Your task to perform on an android device: turn on priority inbox in the gmail app Image 0: 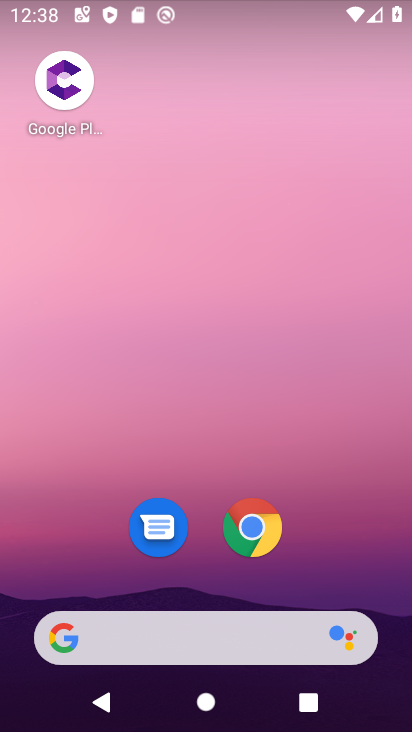
Step 0: drag from (340, 530) to (363, 121)
Your task to perform on an android device: turn on priority inbox in the gmail app Image 1: 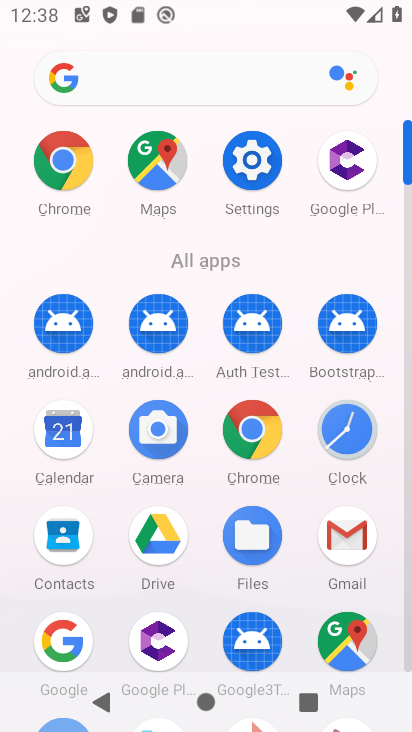
Step 1: click (347, 537)
Your task to perform on an android device: turn on priority inbox in the gmail app Image 2: 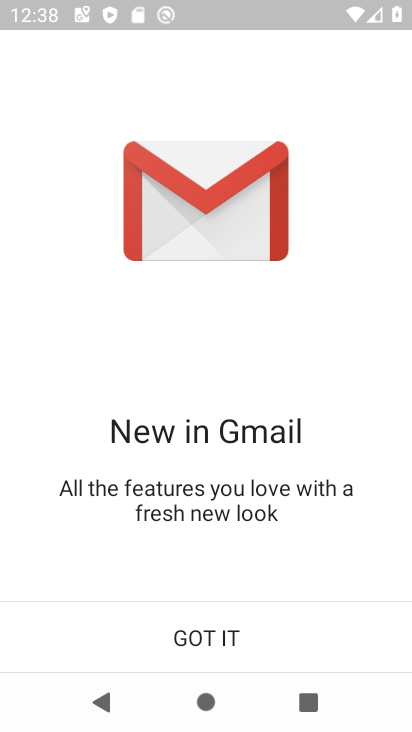
Step 2: click (247, 638)
Your task to perform on an android device: turn on priority inbox in the gmail app Image 3: 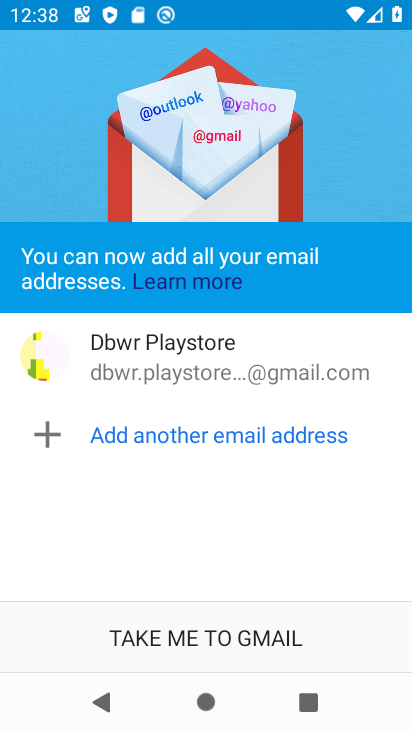
Step 3: click (247, 638)
Your task to perform on an android device: turn on priority inbox in the gmail app Image 4: 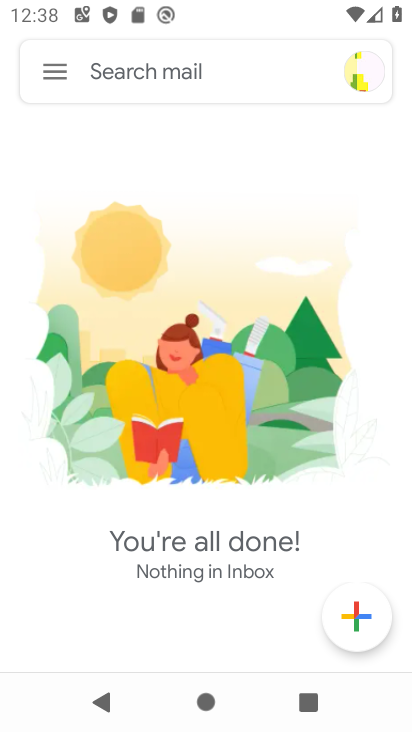
Step 4: click (57, 73)
Your task to perform on an android device: turn on priority inbox in the gmail app Image 5: 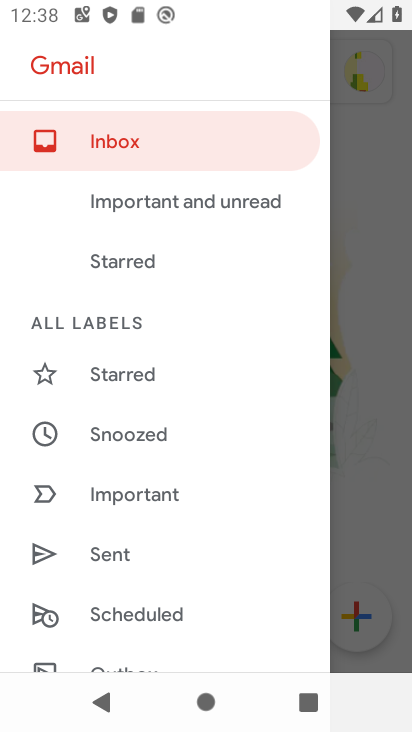
Step 5: drag from (245, 553) to (256, 356)
Your task to perform on an android device: turn on priority inbox in the gmail app Image 6: 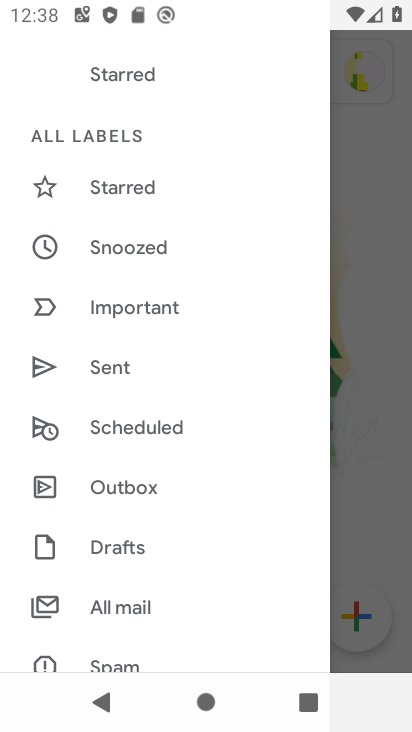
Step 6: drag from (247, 574) to (248, 393)
Your task to perform on an android device: turn on priority inbox in the gmail app Image 7: 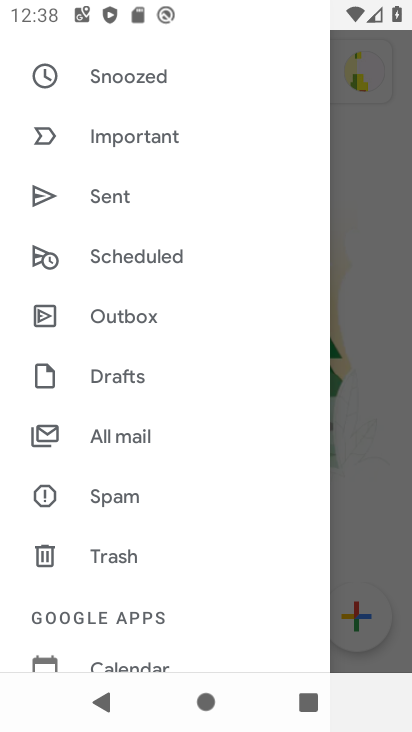
Step 7: drag from (243, 603) to (252, 436)
Your task to perform on an android device: turn on priority inbox in the gmail app Image 8: 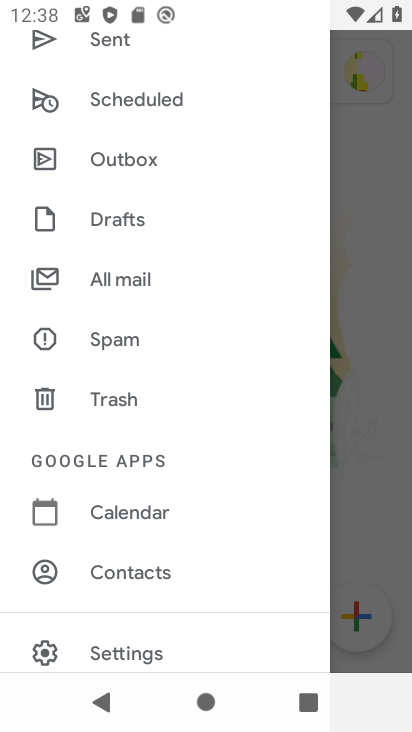
Step 8: drag from (245, 630) to (269, 437)
Your task to perform on an android device: turn on priority inbox in the gmail app Image 9: 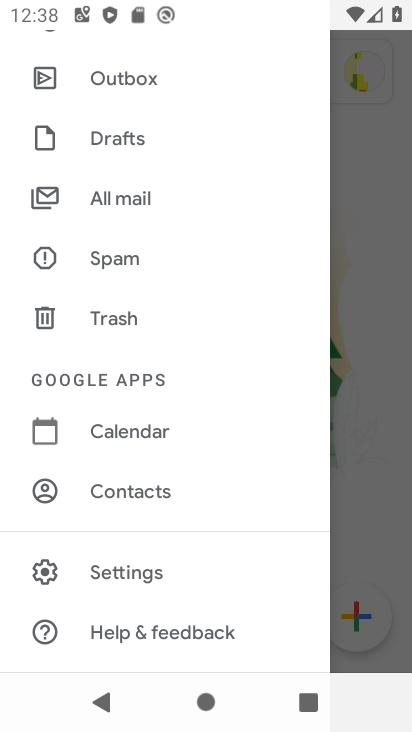
Step 9: click (159, 583)
Your task to perform on an android device: turn on priority inbox in the gmail app Image 10: 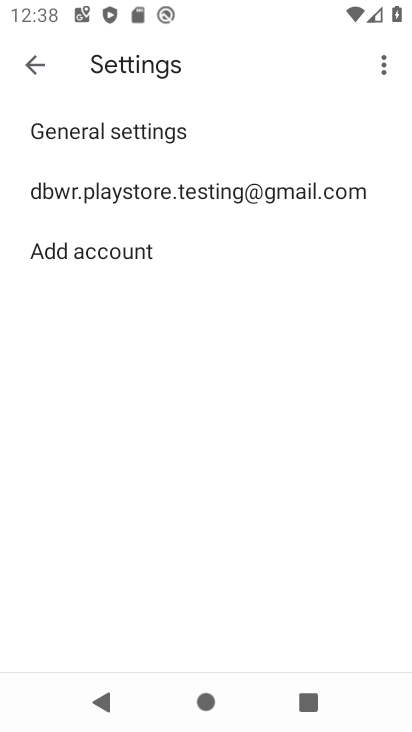
Step 10: click (262, 191)
Your task to perform on an android device: turn on priority inbox in the gmail app Image 11: 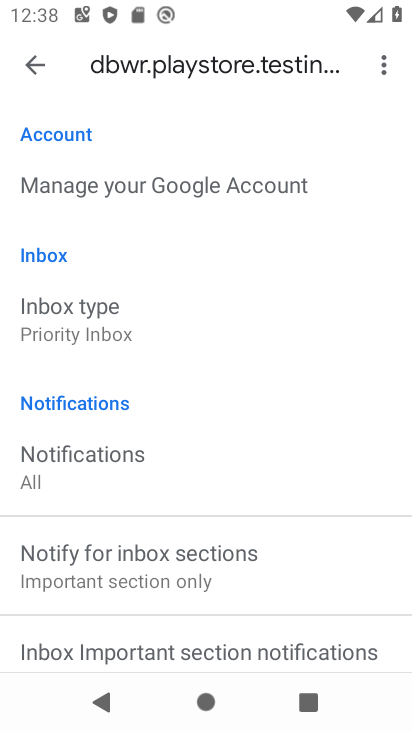
Step 11: drag from (304, 580) to (327, 342)
Your task to perform on an android device: turn on priority inbox in the gmail app Image 12: 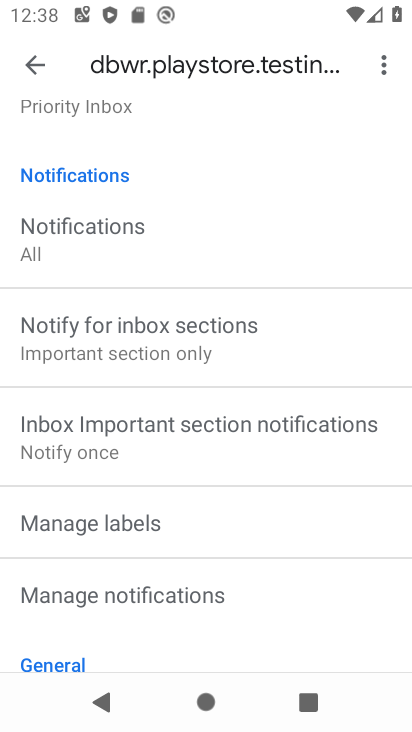
Step 12: drag from (334, 609) to (342, 394)
Your task to perform on an android device: turn on priority inbox in the gmail app Image 13: 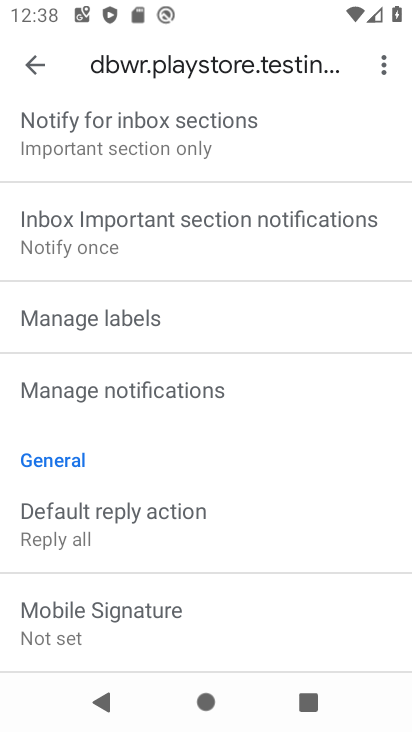
Step 13: drag from (331, 608) to (348, 391)
Your task to perform on an android device: turn on priority inbox in the gmail app Image 14: 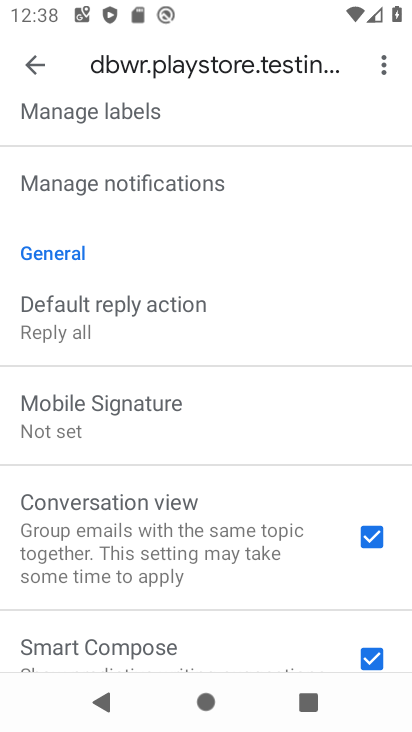
Step 14: drag from (312, 618) to (323, 375)
Your task to perform on an android device: turn on priority inbox in the gmail app Image 15: 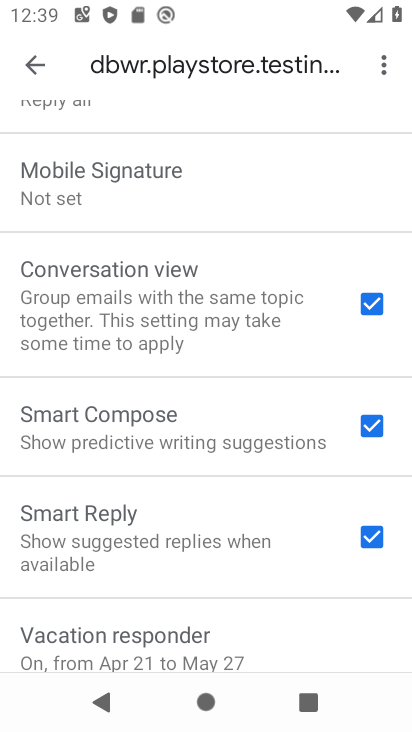
Step 15: drag from (300, 630) to (301, 403)
Your task to perform on an android device: turn on priority inbox in the gmail app Image 16: 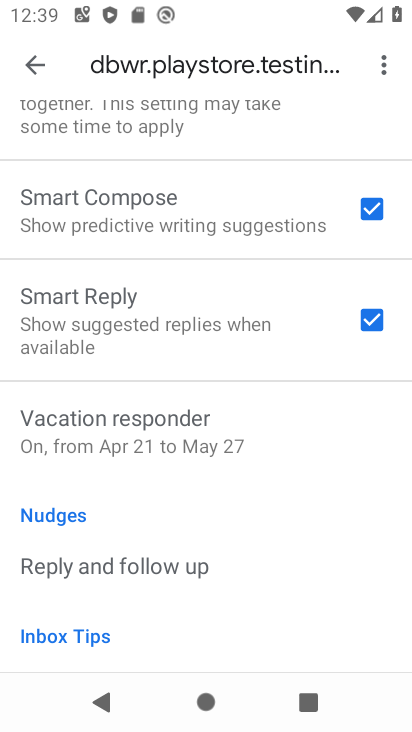
Step 16: drag from (303, 254) to (331, 521)
Your task to perform on an android device: turn on priority inbox in the gmail app Image 17: 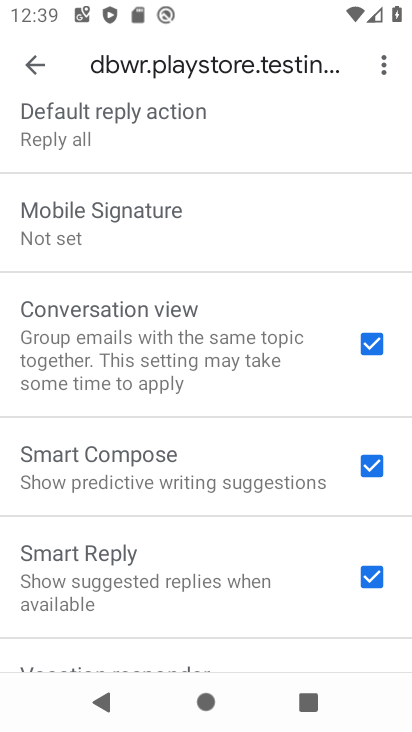
Step 17: drag from (306, 228) to (305, 510)
Your task to perform on an android device: turn on priority inbox in the gmail app Image 18: 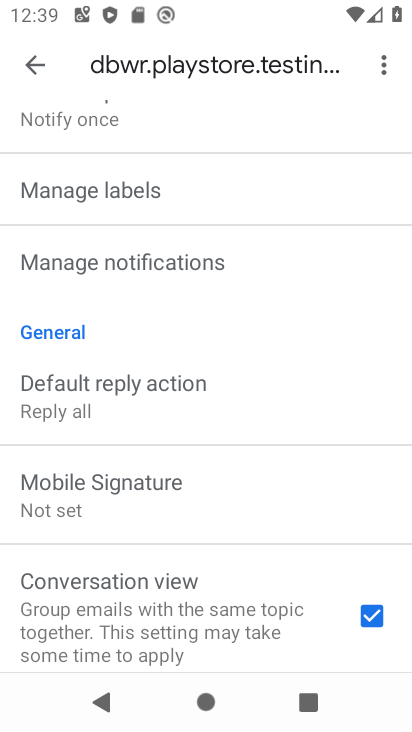
Step 18: drag from (316, 246) to (311, 464)
Your task to perform on an android device: turn on priority inbox in the gmail app Image 19: 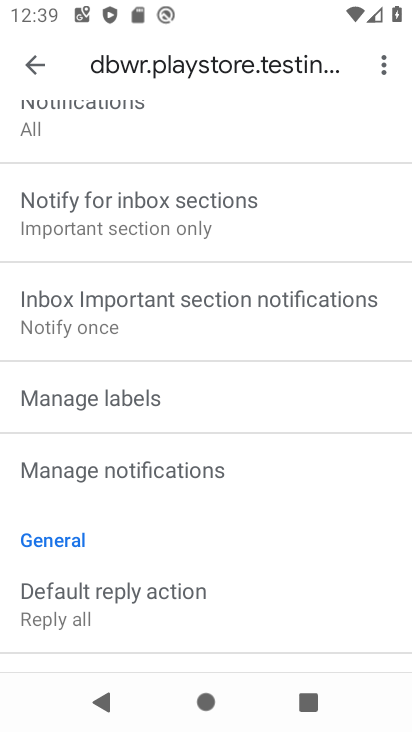
Step 19: drag from (303, 210) to (303, 449)
Your task to perform on an android device: turn on priority inbox in the gmail app Image 20: 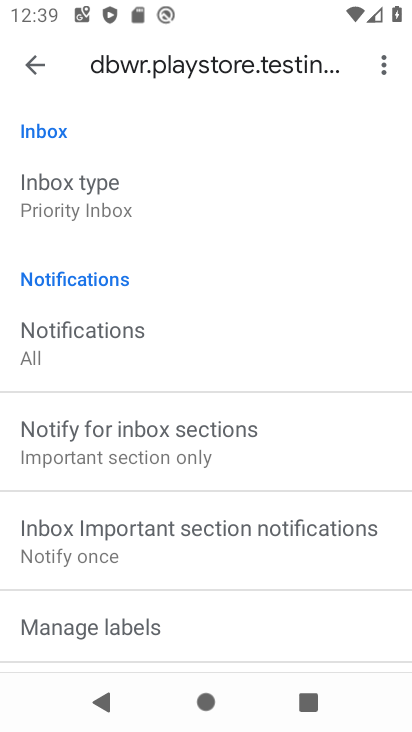
Step 20: click (98, 192)
Your task to perform on an android device: turn on priority inbox in the gmail app Image 21: 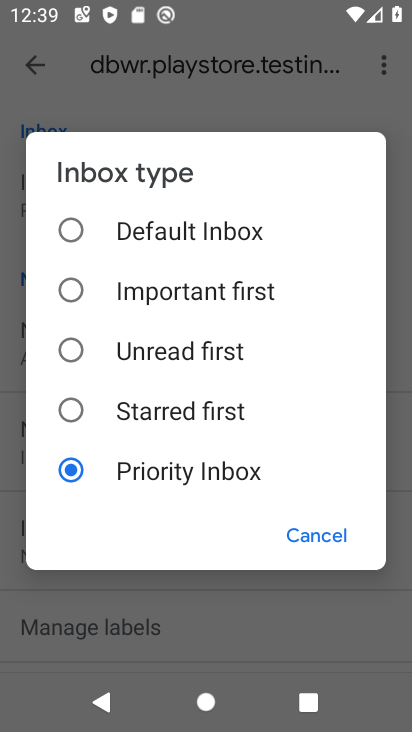
Step 21: task complete